Your task to perform on an android device: Show the shopping cart on target.com. Image 0: 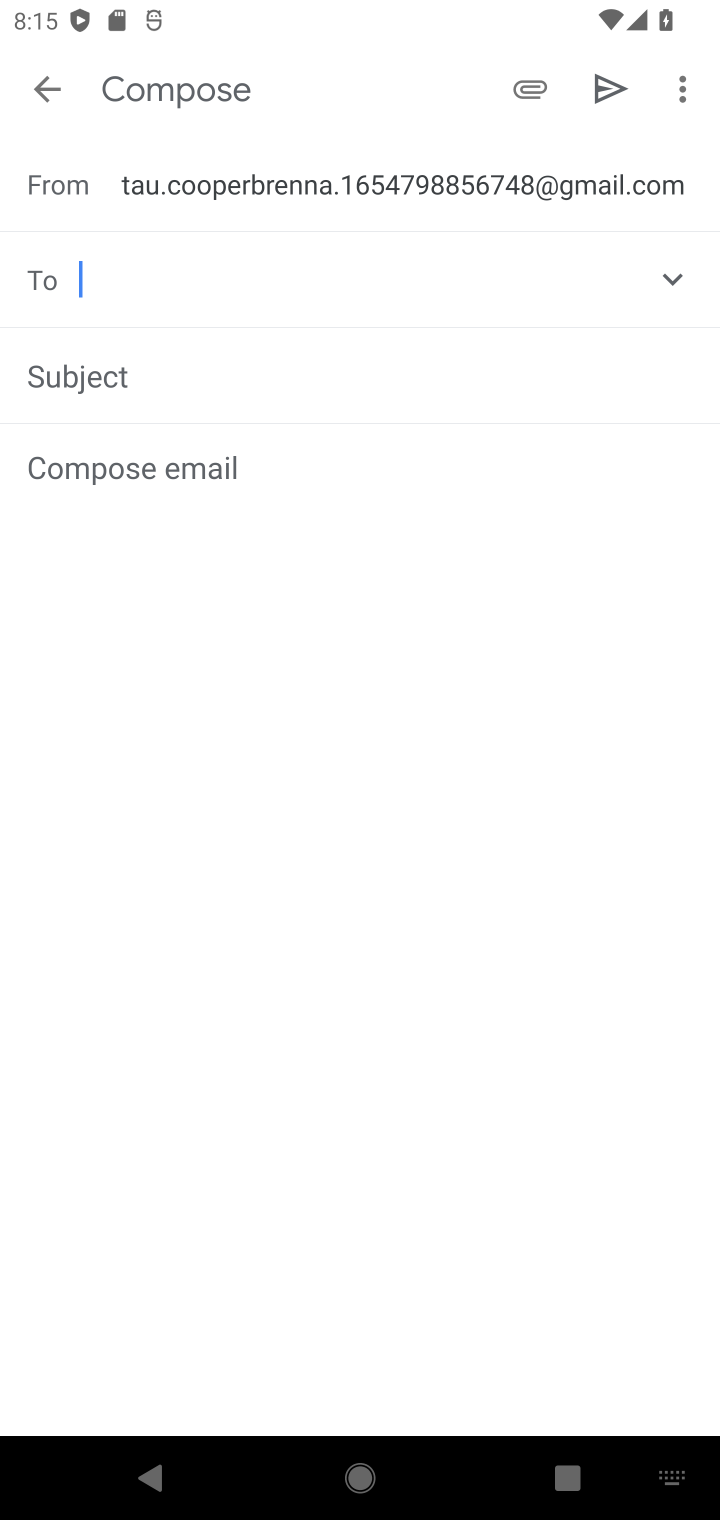
Step 0: press home button
Your task to perform on an android device: Show the shopping cart on target.com. Image 1: 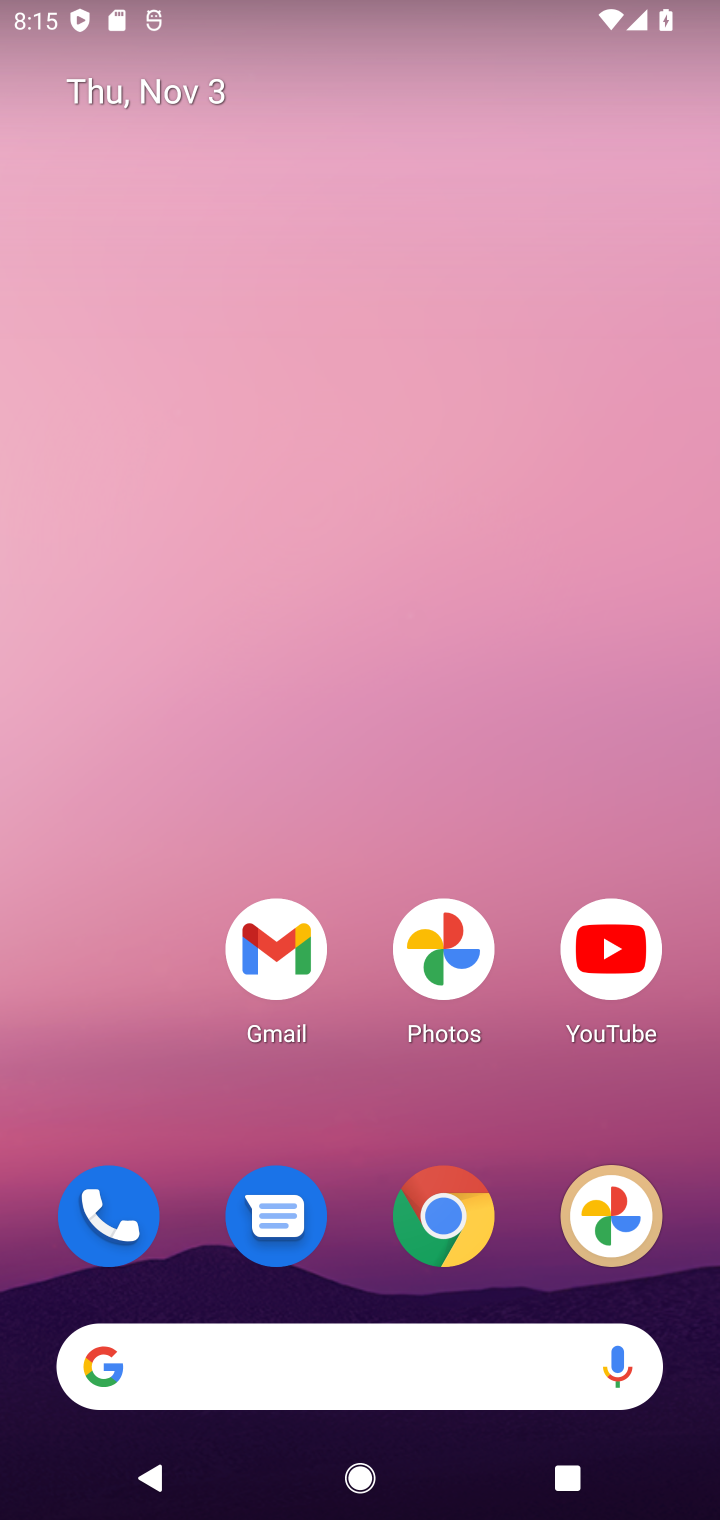
Step 1: click (476, 1244)
Your task to perform on an android device: Show the shopping cart on target.com. Image 2: 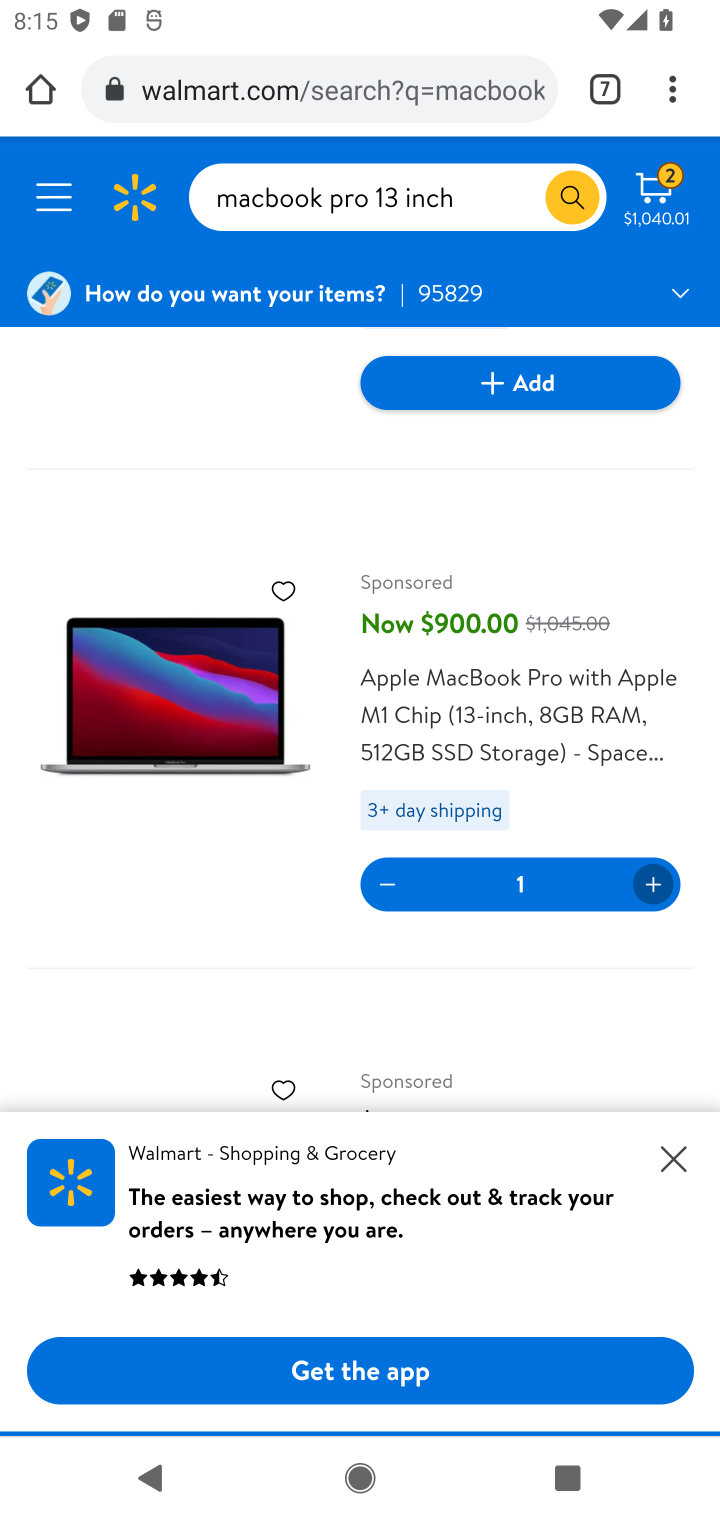
Step 2: click (613, 94)
Your task to perform on an android device: Show the shopping cart on target.com. Image 3: 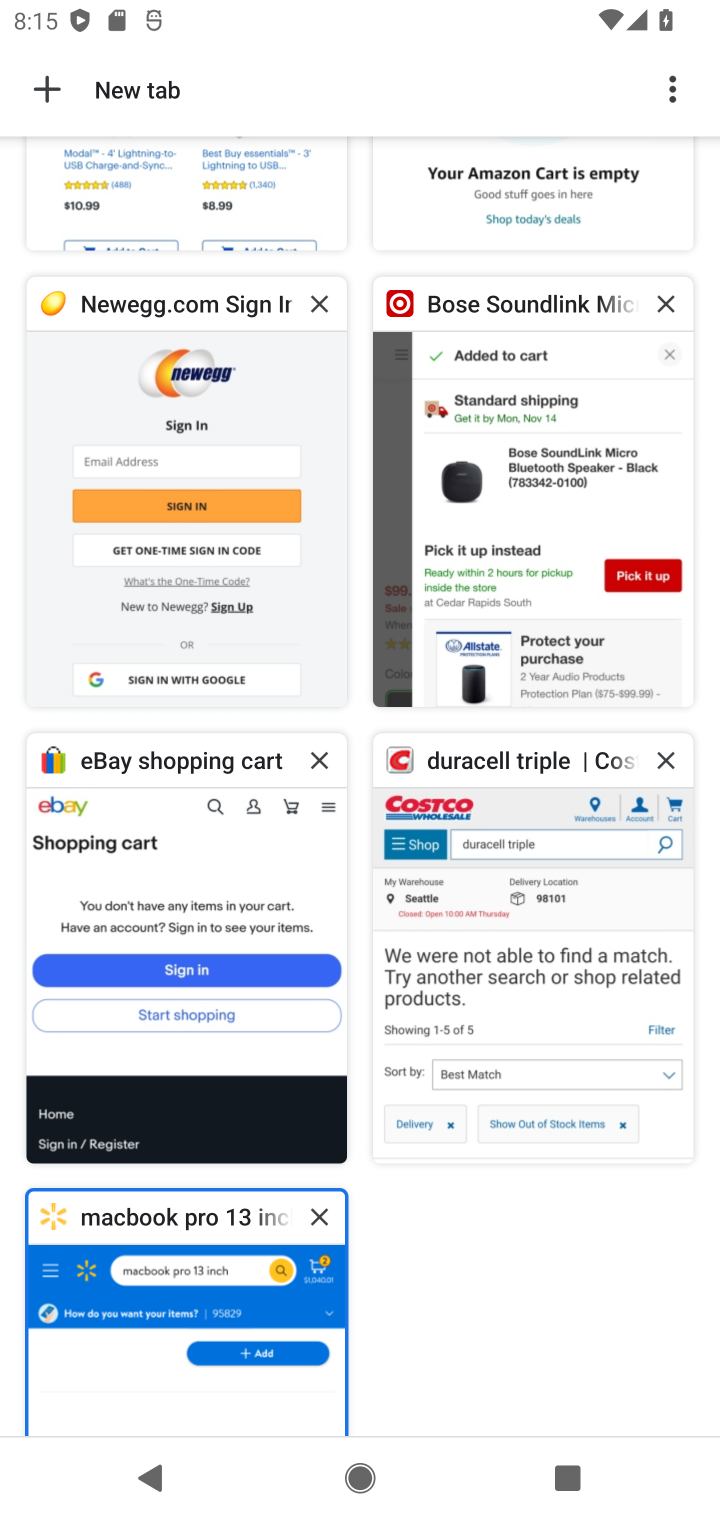
Step 3: click (583, 411)
Your task to perform on an android device: Show the shopping cart on target.com. Image 4: 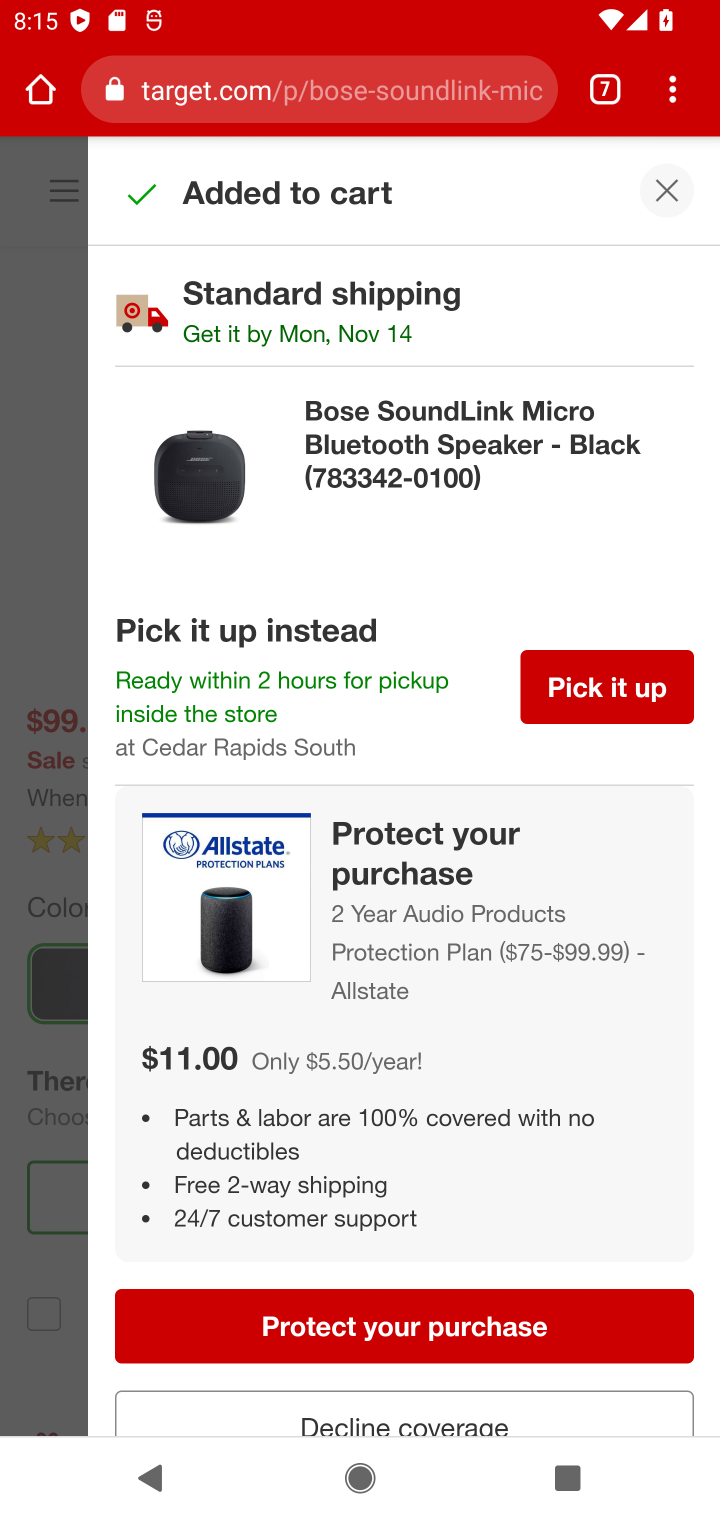
Step 4: click (660, 182)
Your task to perform on an android device: Show the shopping cart on target.com. Image 5: 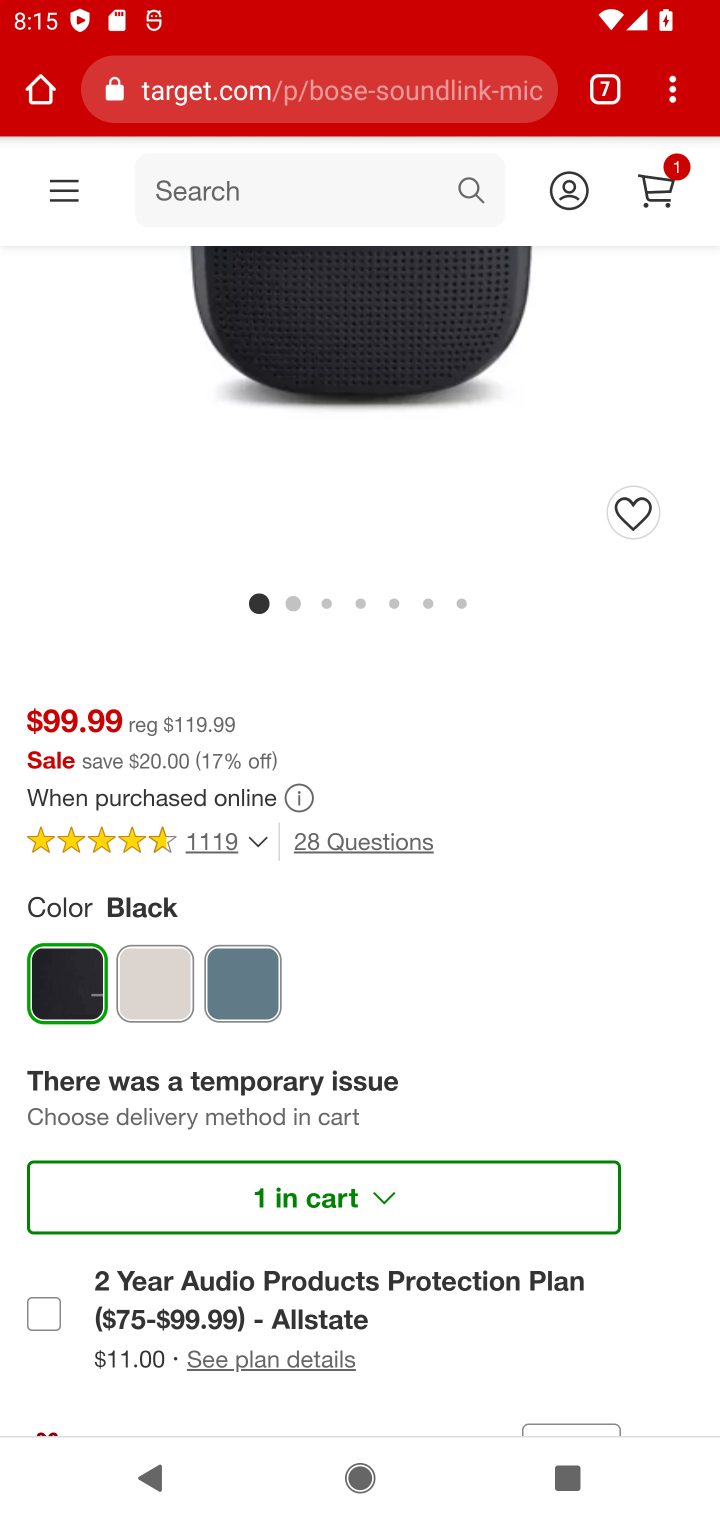
Step 5: click (660, 182)
Your task to perform on an android device: Show the shopping cart on target.com. Image 6: 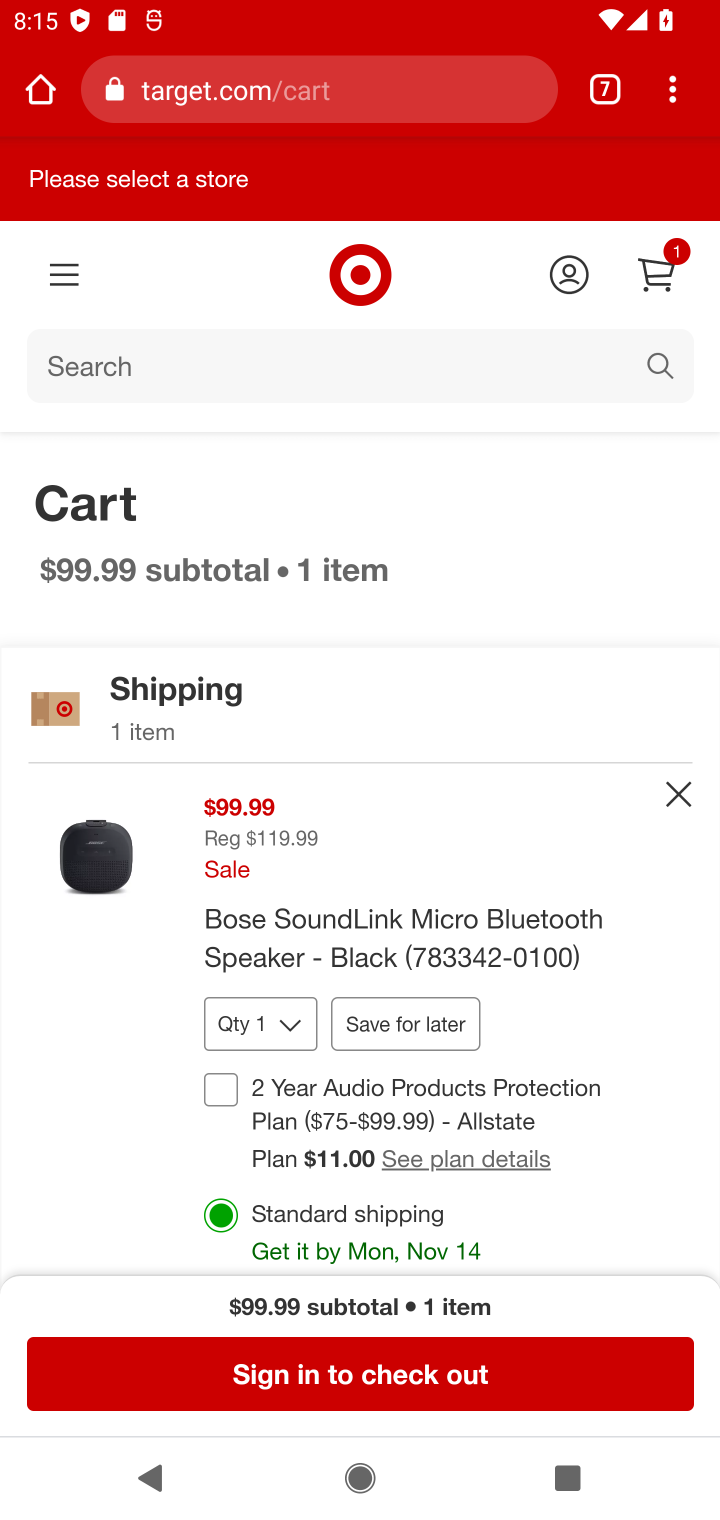
Step 6: task complete